Your task to perform on an android device: turn off location history Image 0: 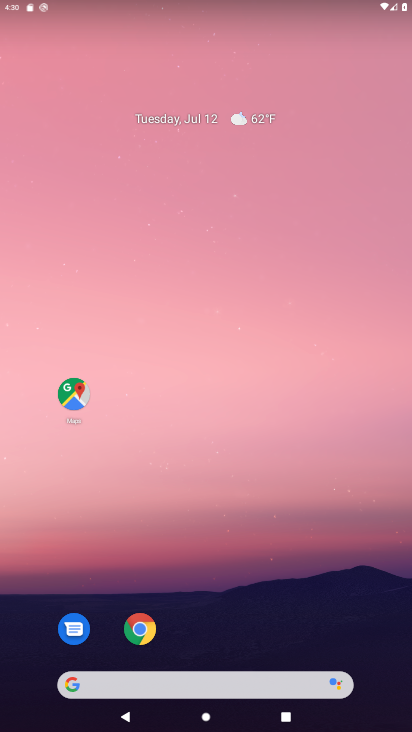
Step 0: drag from (245, 694) to (253, 127)
Your task to perform on an android device: turn off location history Image 1: 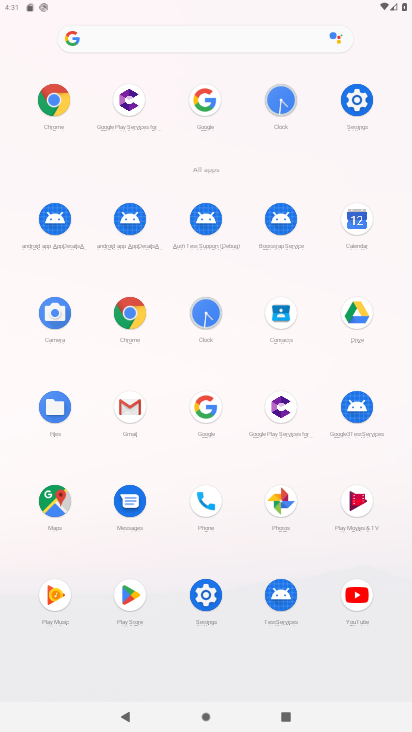
Step 1: click (348, 99)
Your task to perform on an android device: turn off location history Image 2: 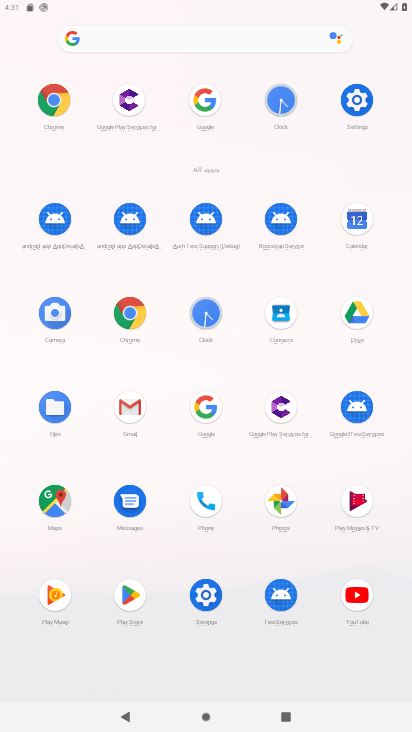
Step 2: click (362, 97)
Your task to perform on an android device: turn off location history Image 3: 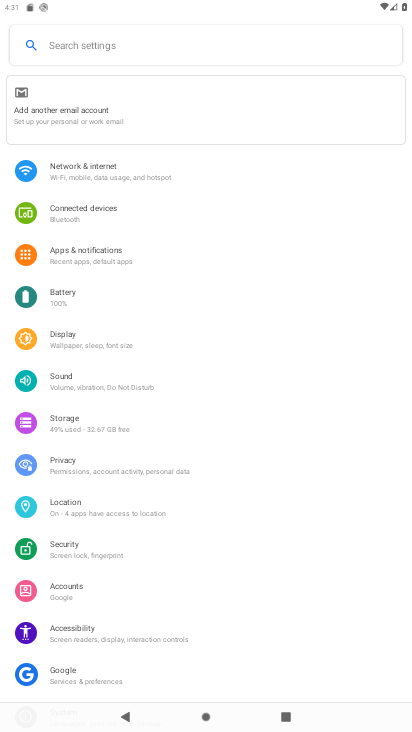
Step 3: click (93, 497)
Your task to perform on an android device: turn off location history Image 4: 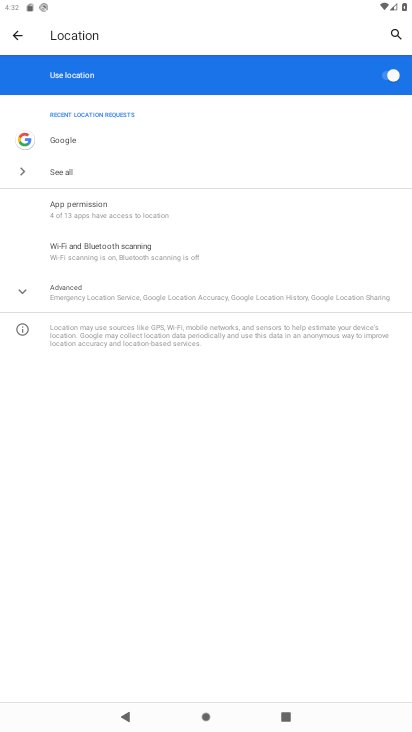
Step 4: click (386, 77)
Your task to perform on an android device: turn off location history Image 5: 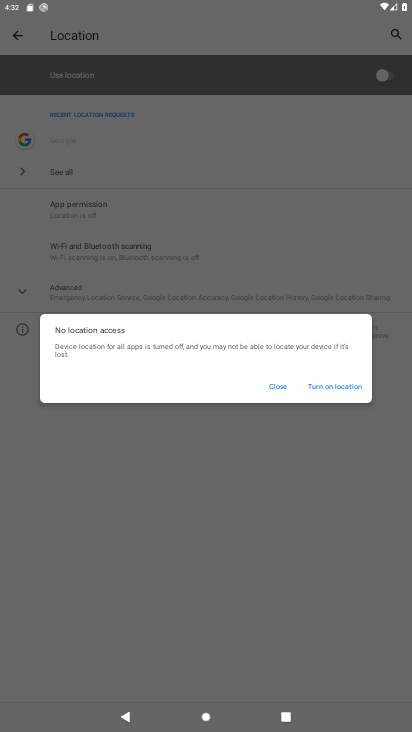
Step 5: task complete